Your task to perform on an android device: allow cookies in the chrome app Image 0: 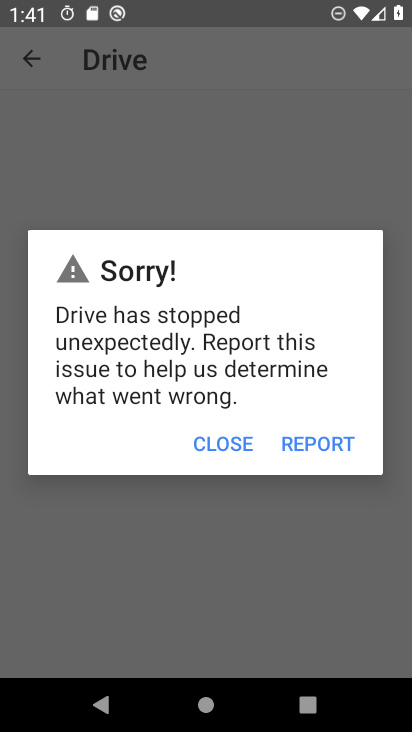
Step 0: press home button
Your task to perform on an android device: allow cookies in the chrome app Image 1: 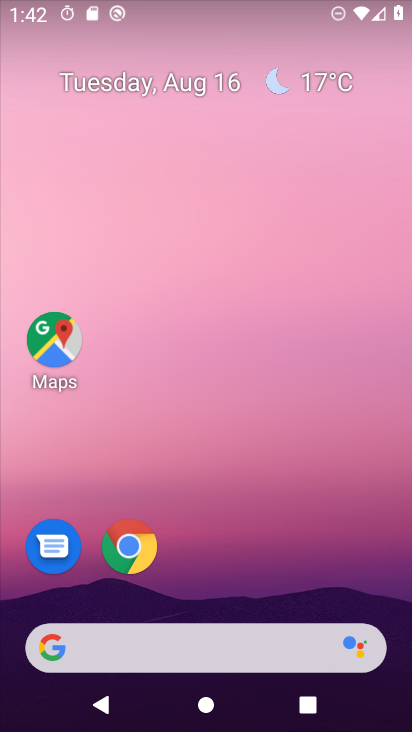
Step 1: click (129, 551)
Your task to perform on an android device: allow cookies in the chrome app Image 2: 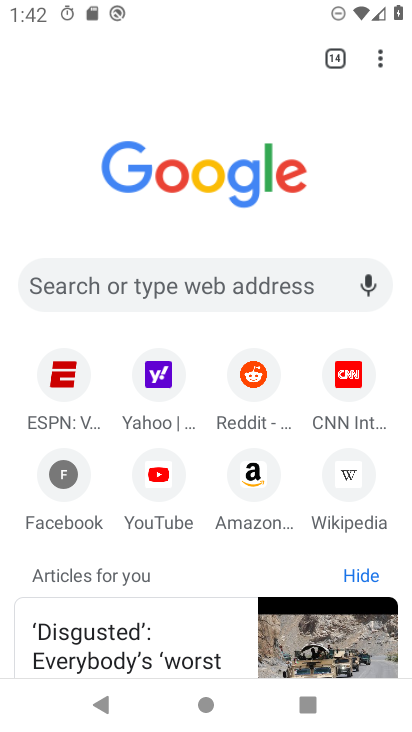
Step 2: click (380, 64)
Your task to perform on an android device: allow cookies in the chrome app Image 3: 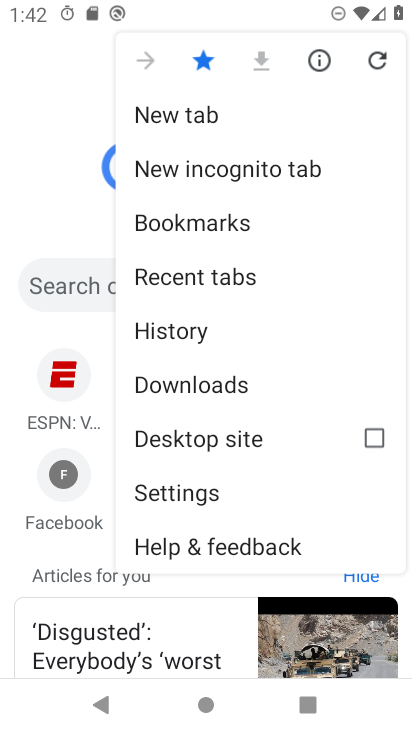
Step 3: click (169, 493)
Your task to perform on an android device: allow cookies in the chrome app Image 4: 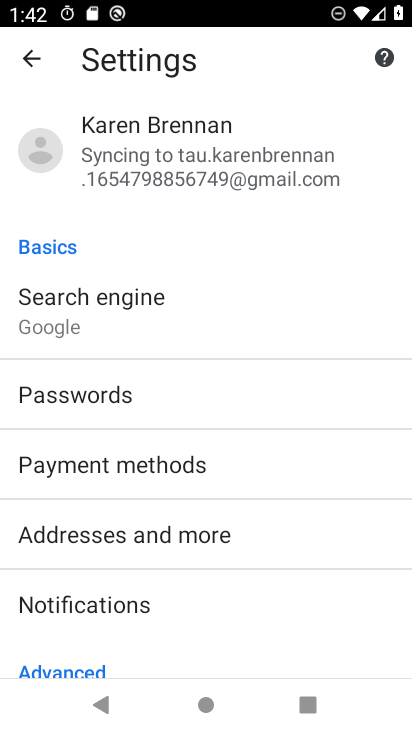
Step 4: drag from (101, 648) to (85, 263)
Your task to perform on an android device: allow cookies in the chrome app Image 5: 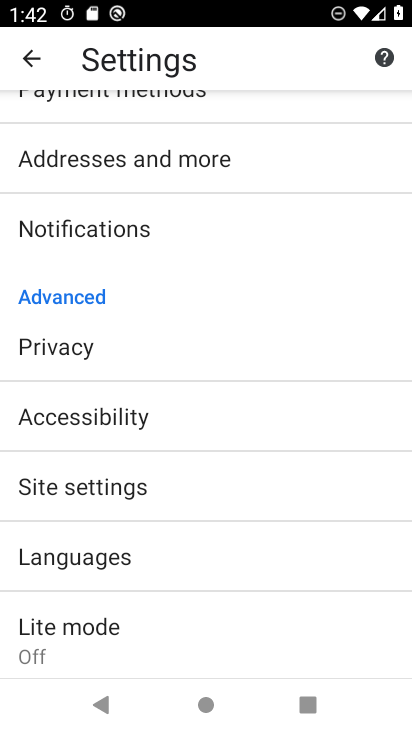
Step 5: click (76, 487)
Your task to perform on an android device: allow cookies in the chrome app Image 6: 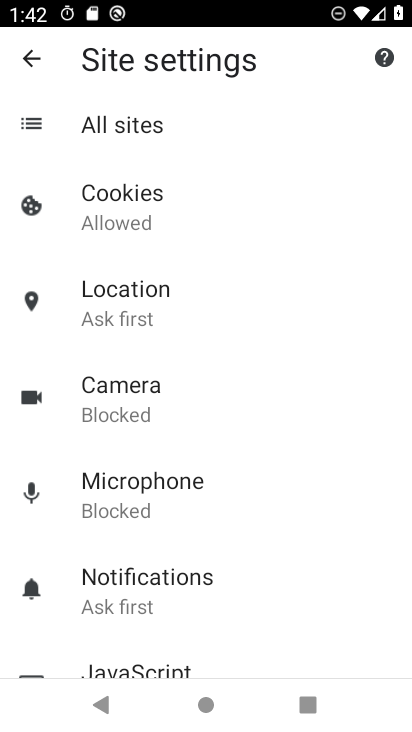
Step 6: click (102, 205)
Your task to perform on an android device: allow cookies in the chrome app Image 7: 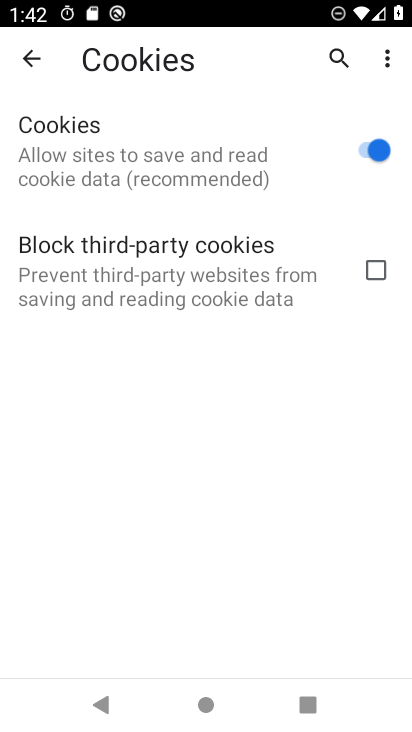
Step 7: task complete